Your task to perform on an android device: turn off priority inbox in the gmail app Image 0: 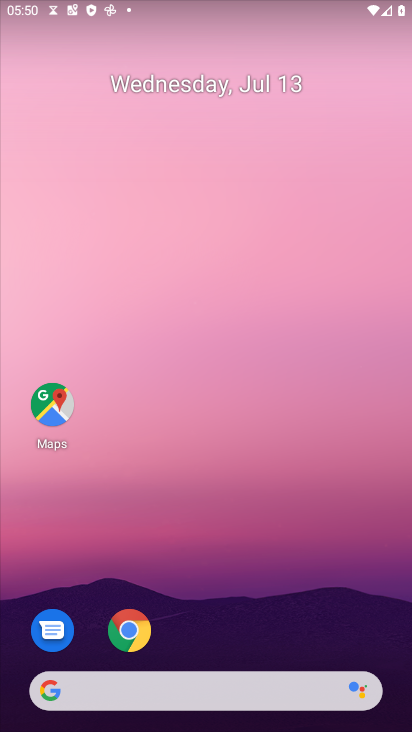
Step 0: drag from (325, 641) to (365, 70)
Your task to perform on an android device: turn off priority inbox in the gmail app Image 1: 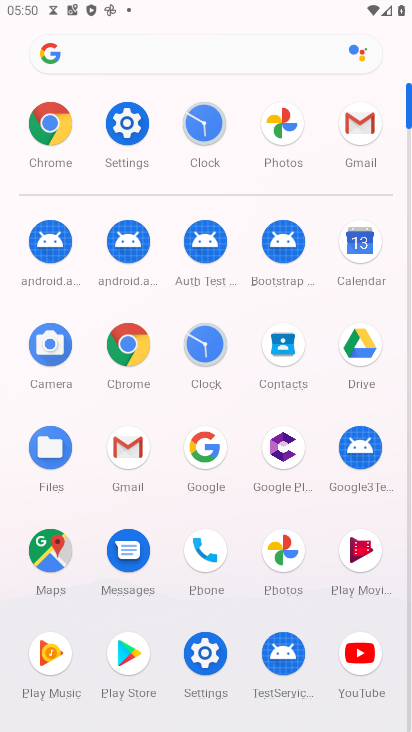
Step 1: click (123, 454)
Your task to perform on an android device: turn off priority inbox in the gmail app Image 2: 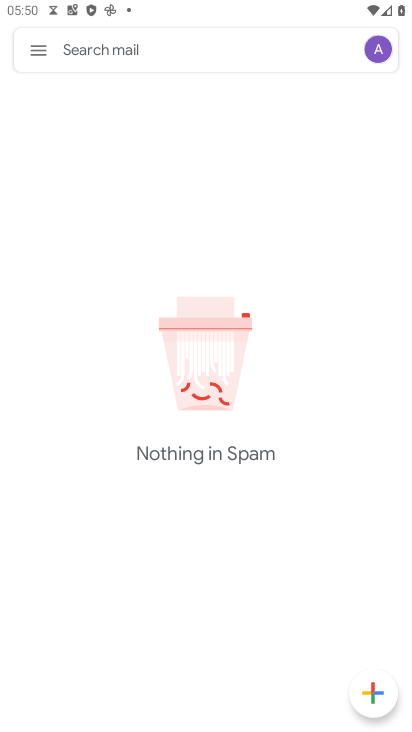
Step 2: click (32, 52)
Your task to perform on an android device: turn off priority inbox in the gmail app Image 3: 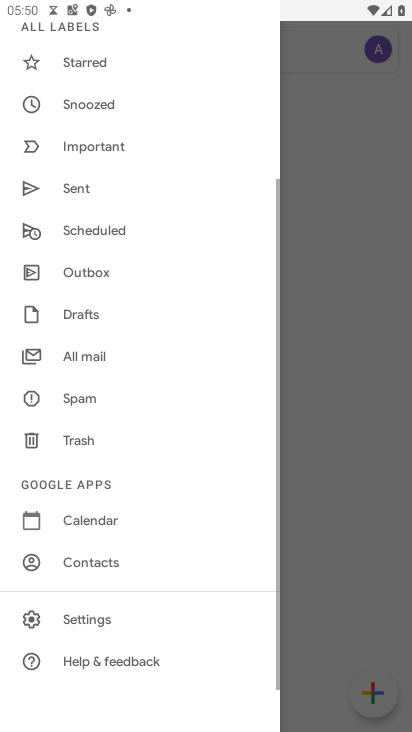
Step 3: click (136, 627)
Your task to perform on an android device: turn off priority inbox in the gmail app Image 4: 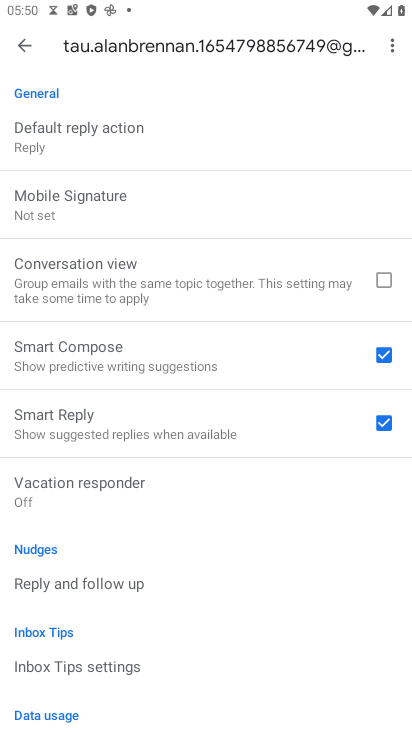
Step 4: drag from (142, 132) to (308, 731)
Your task to perform on an android device: turn off priority inbox in the gmail app Image 5: 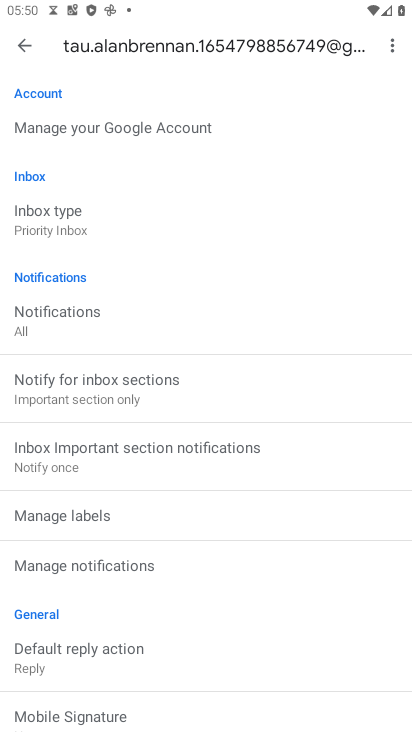
Step 5: click (96, 231)
Your task to perform on an android device: turn off priority inbox in the gmail app Image 6: 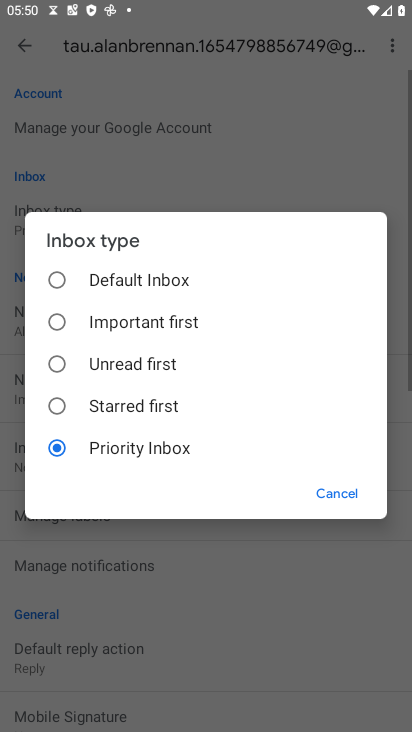
Step 6: click (88, 290)
Your task to perform on an android device: turn off priority inbox in the gmail app Image 7: 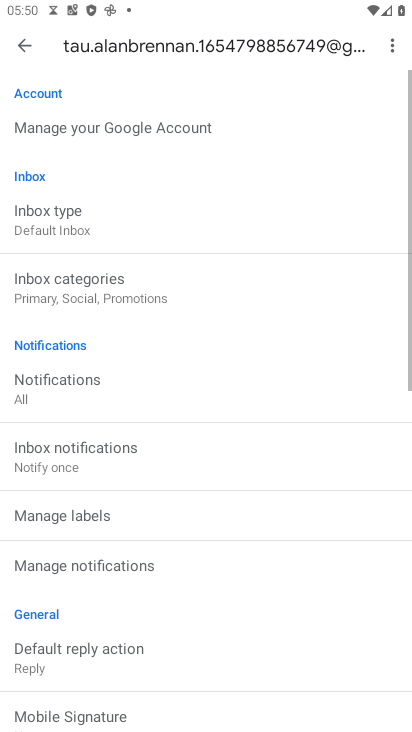
Step 7: task complete